Your task to perform on an android device: visit the assistant section in the google photos Image 0: 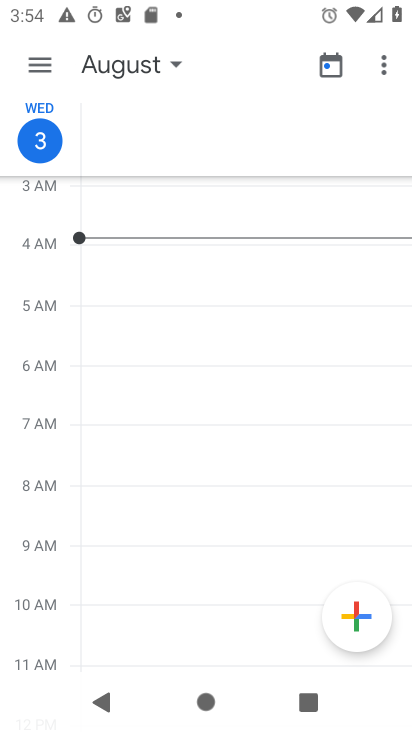
Step 0: press home button
Your task to perform on an android device: visit the assistant section in the google photos Image 1: 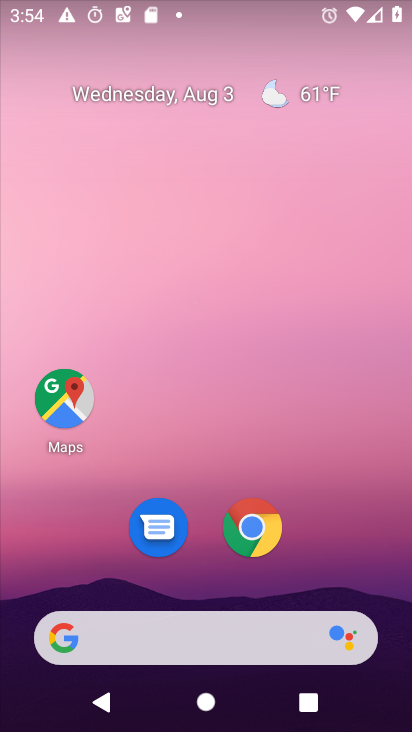
Step 1: drag from (323, 523) to (316, 23)
Your task to perform on an android device: visit the assistant section in the google photos Image 2: 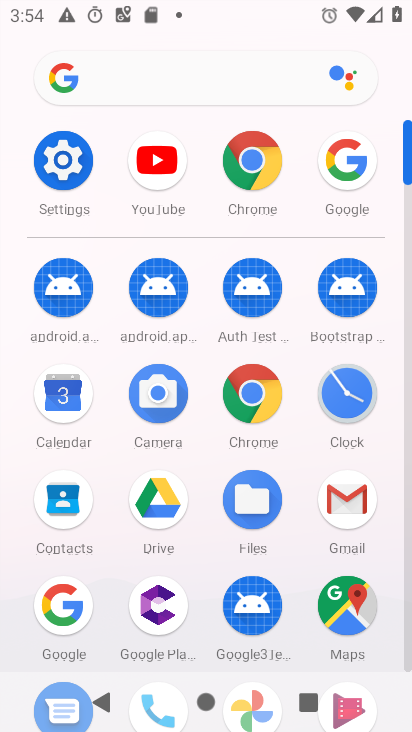
Step 2: drag from (203, 571) to (214, 333)
Your task to perform on an android device: visit the assistant section in the google photos Image 3: 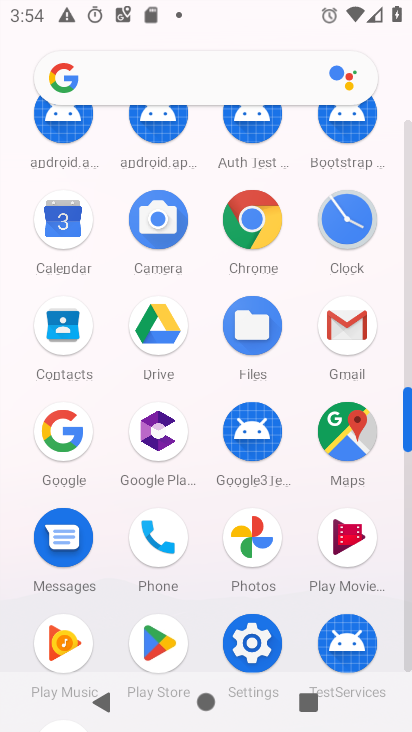
Step 3: click (243, 538)
Your task to perform on an android device: visit the assistant section in the google photos Image 4: 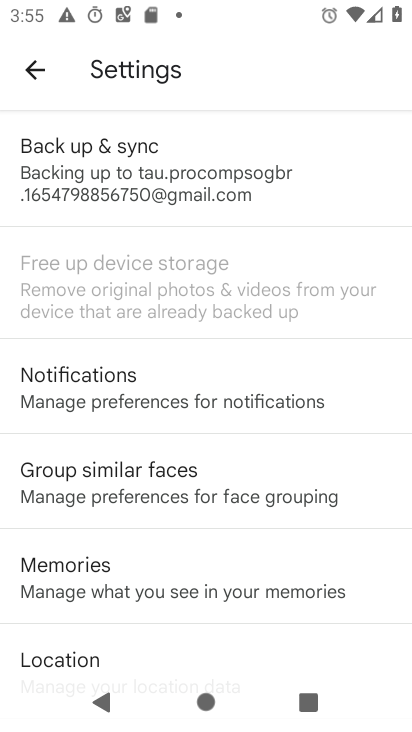
Step 4: click (34, 70)
Your task to perform on an android device: visit the assistant section in the google photos Image 5: 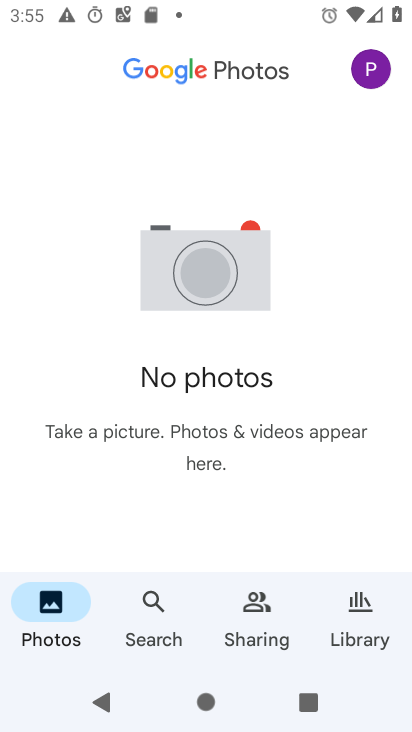
Step 5: click (360, 613)
Your task to perform on an android device: visit the assistant section in the google photos Image 6: 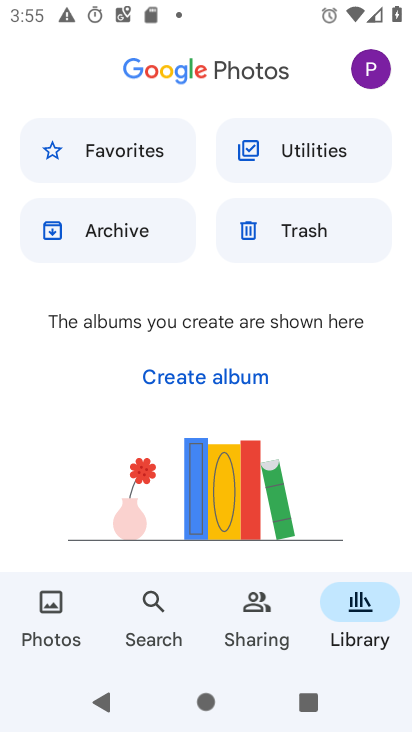
Step 6: click (293, 137)
Your task to perform on an android device: visit the assistant section in the google photos Image 7: 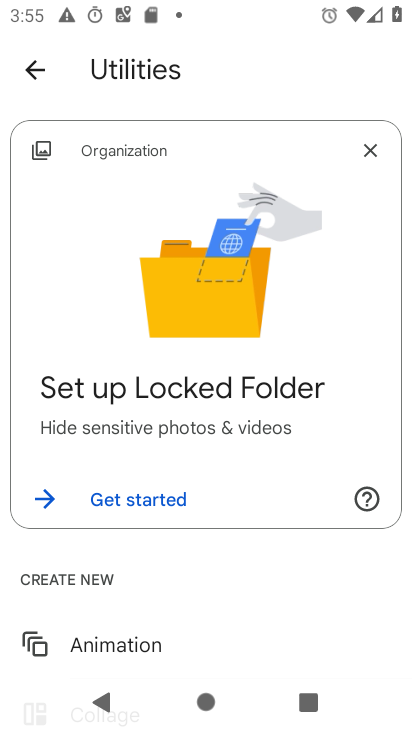
Step 7: click (46, 66)
Your task to perform on an android device: visit the assistant section in the google photos Image 8: 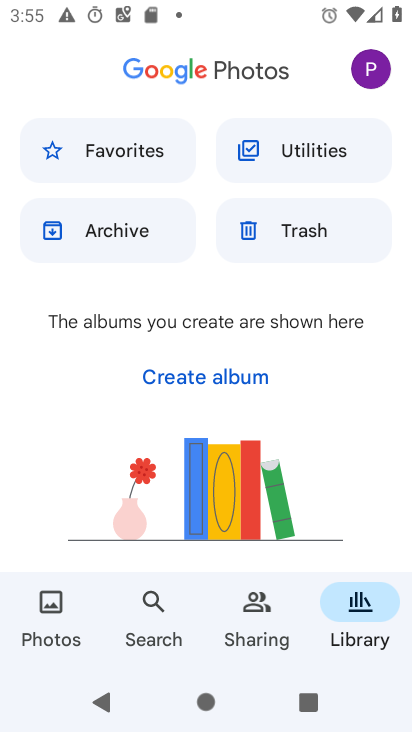
Step 8: click (234, 612)
Your task to perform on an android device: visit the assistant section in the google photos Image 9: 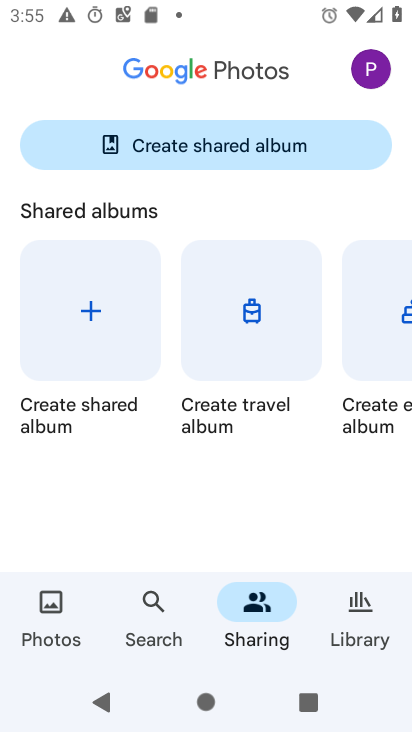
Step 9: task complete